Your task to perform on an android device: toggle notification dots Image 0: 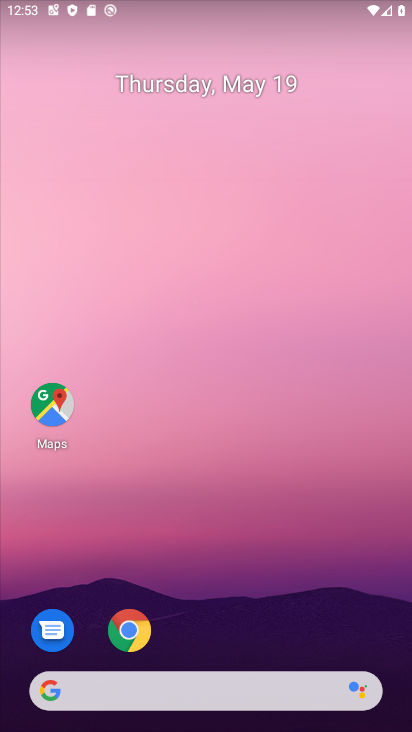
Step 0: drag from (199, 661) to (247, 0)
Your task to perform on an android device: toggle notification dots Image 1: 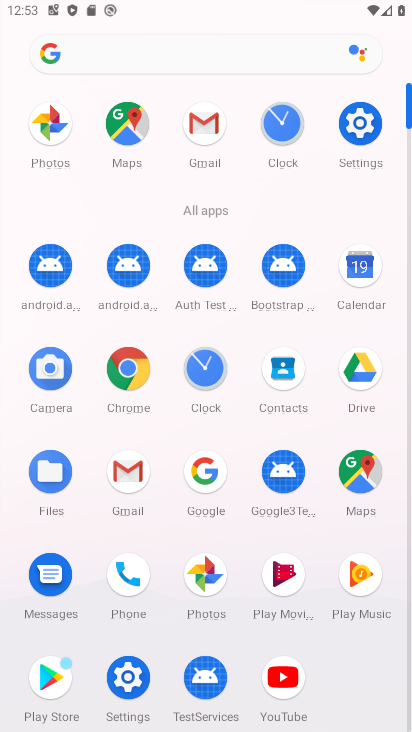
Step 1: click (362, 116)
Your task to perform on an android device: toggle notification dots Image 2: 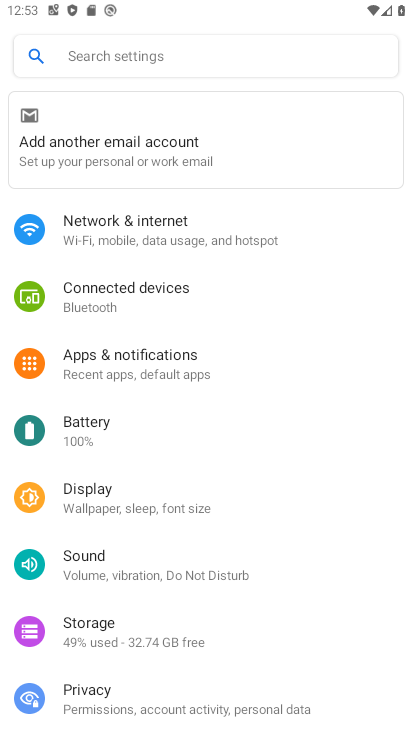
Step 2: click (131, 350)
Your task to perform on an android device: toggle notification dots Image 3: 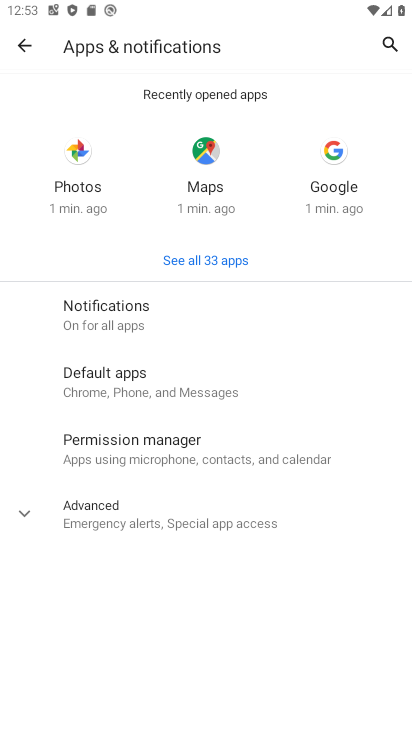
Step 3: click (113, 317)
Your task to perform on an android device: toggle notification dots Image 4: 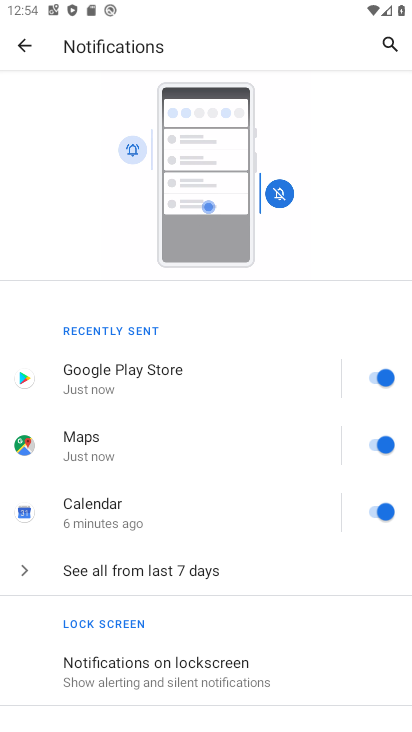
Step 4: drag from (169, 660) to (164, 265)
Your task to perform on an android device: toggle notification dots Image 5: 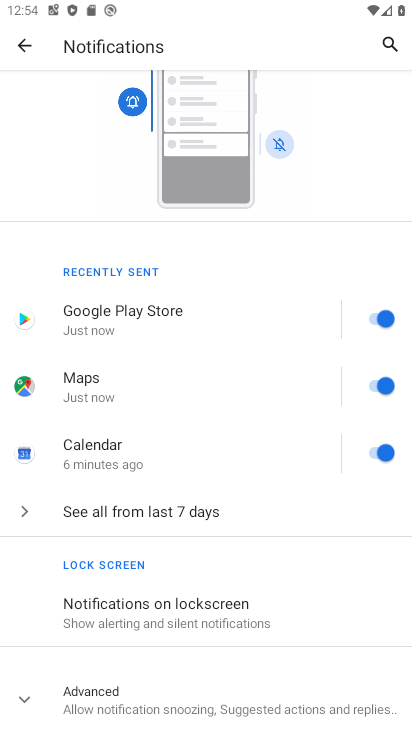
Step 5: click (175, 689)
Your task to perform on an android device: toggle notification dots Image 6: 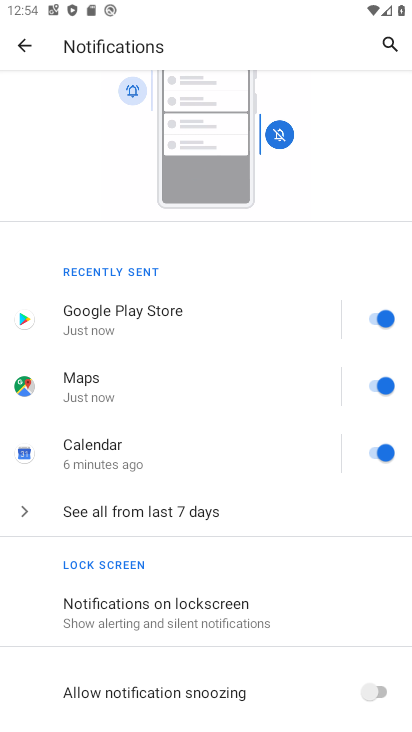
Step 6: drag from (200, 669) to (143, 170)
Your task to perform on an android device: toggle notification dots Image 7: 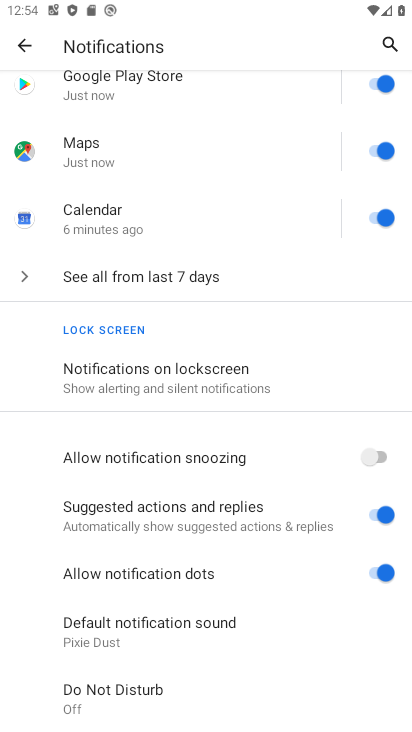
Step 7: click (378, 574)
Your task to perform on an android device: toggle notification dots Image 8: 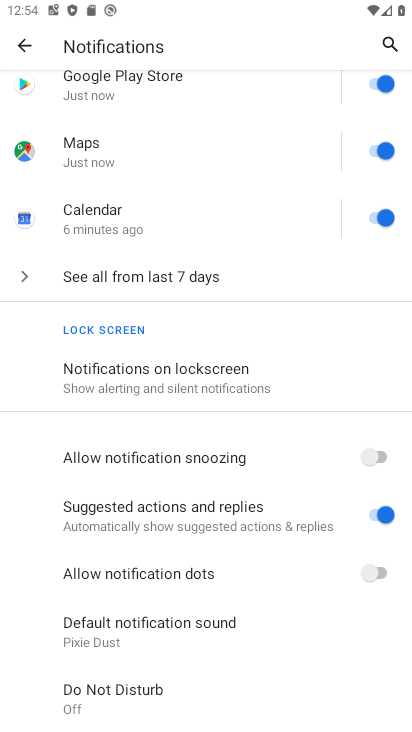
Step 8: task complete